Your task to perform on an android device: turn on data saver in the chrome app Image 0: 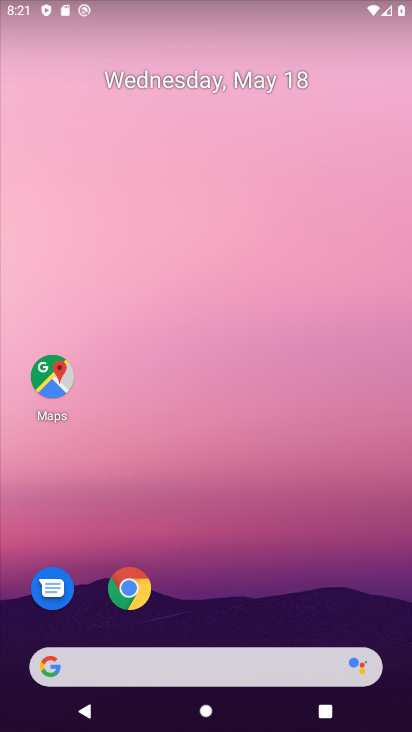
Step 0: drag from (269, 574) to (284, 43)
Your task to perform on an android device: turn on data saver in the chrome app Image 1: 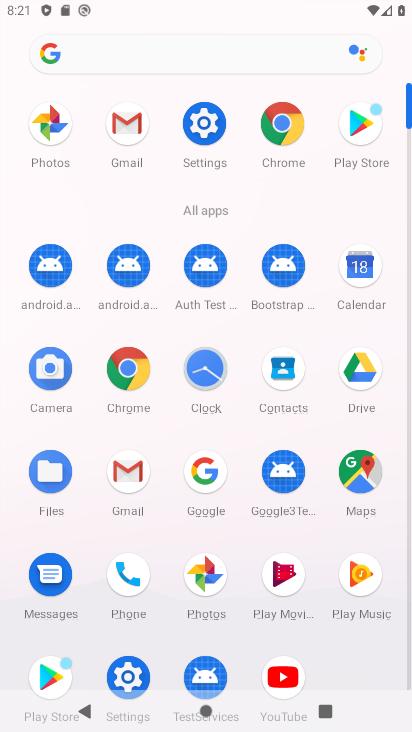
Step 1: click (141, 396)
Your task to perform on an android device: turn on data saver in the chrome app Image 2: 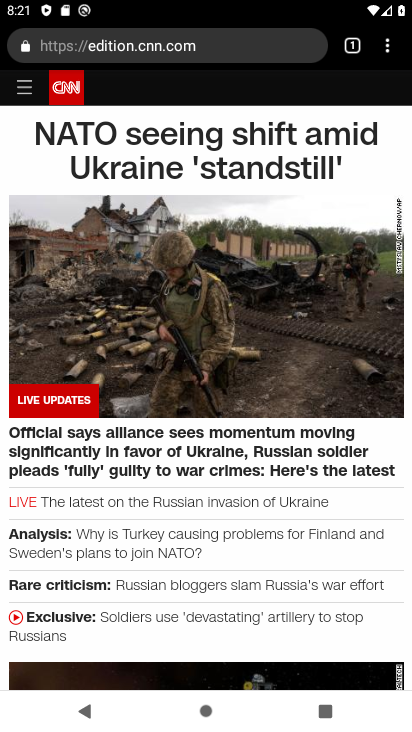
Step 2: drag from (392, 55) to (269, 516)
Your task to perform on an android device: turn on data saver in the chrome app Image 3: 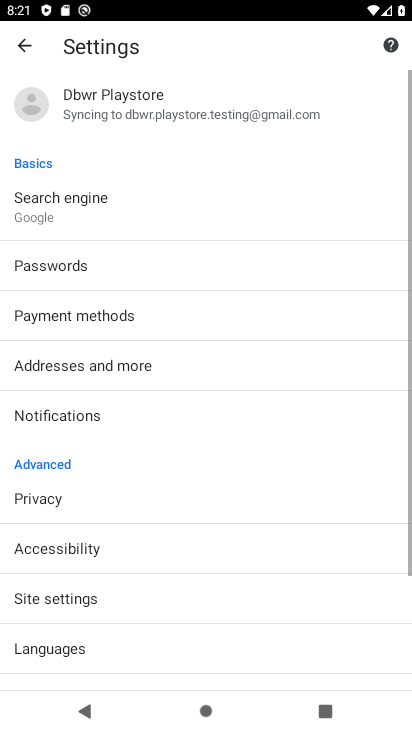
Step 3: drag from (238, 651) to (247, 293)
Your task to perform on an android device: turn on data saver in the chrome app Image 4: 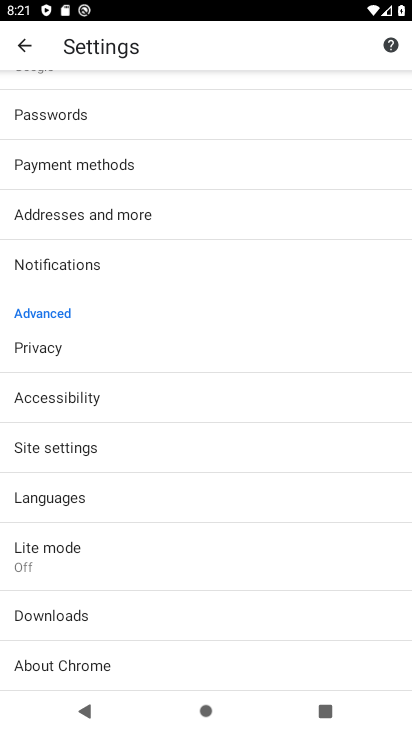
Step 4: click (115, 541)
Your task to perform on an android device: turn on data saver in the chrome app Image 5: 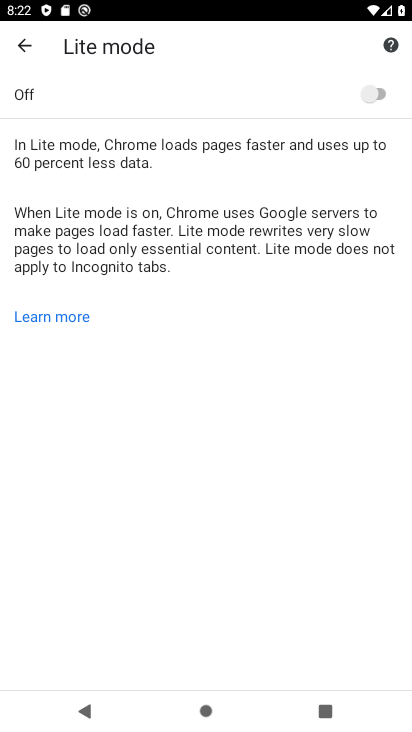
Step 5: click (384, 99)
Your task to perform on an android device: turn on data saver in the chrome app Image 6: 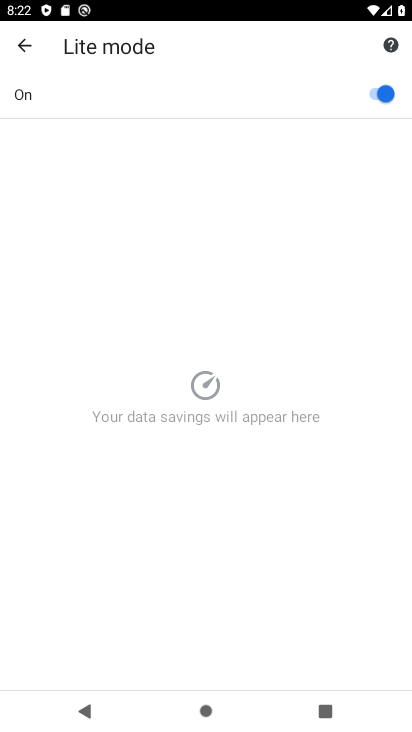
Step 6: task complete